Your task to perform on an android device: turn on airplane mode Image 0: 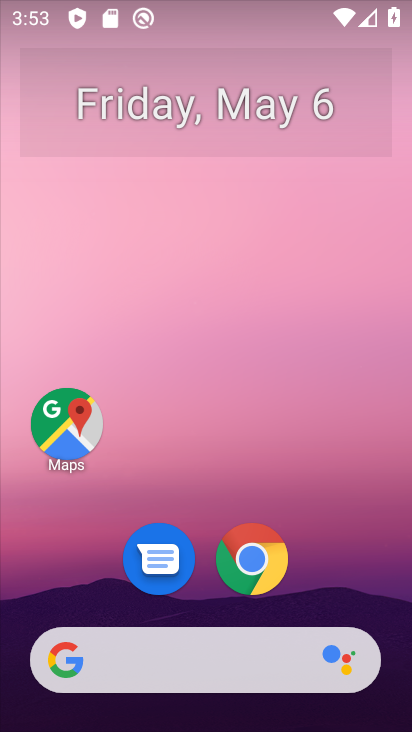
Step 0: click (214, 256)
Your task to perform on an android device: turn on airplane mode Image 1: 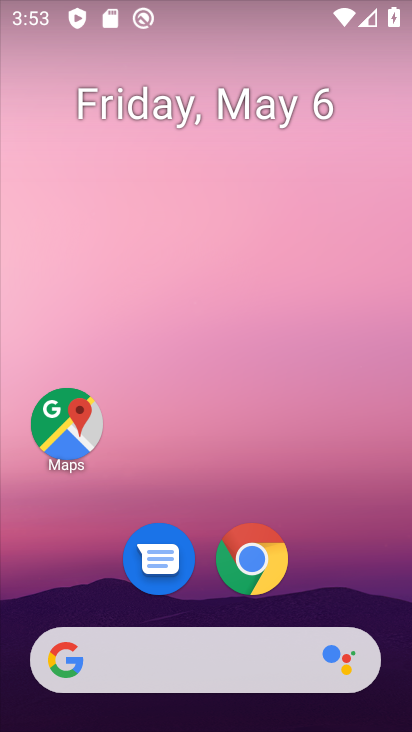
Step 1: click (245, 554)
Your task to perform on an android device: turn on airplane mode Image 2: 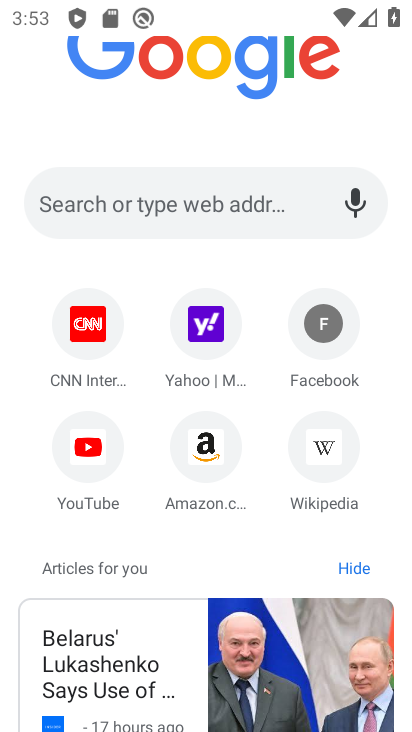
Step 2: click (185, 200)
Your task to perform on an android device: turn on airplane mode Image 3: 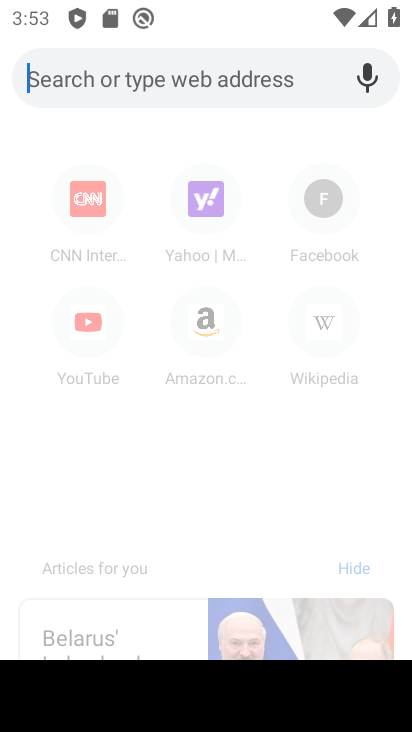
Step 3: type "ebay"
Your task to perform on an android device: turn on airplane mode Image 4: 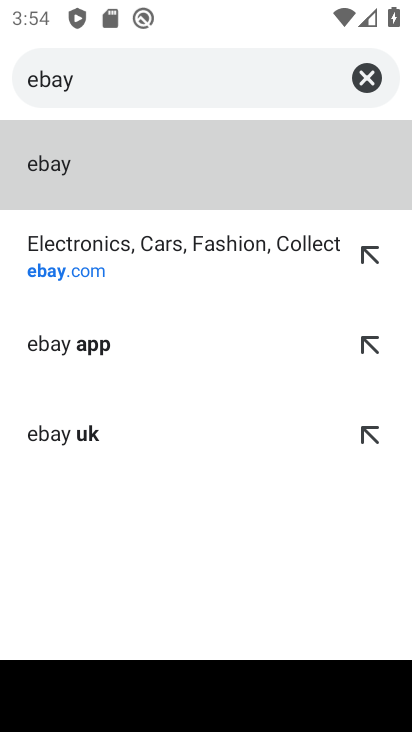
Step 4: task complete